Your task to perform on an android device: turn off javascript in the chrome app Image 0: 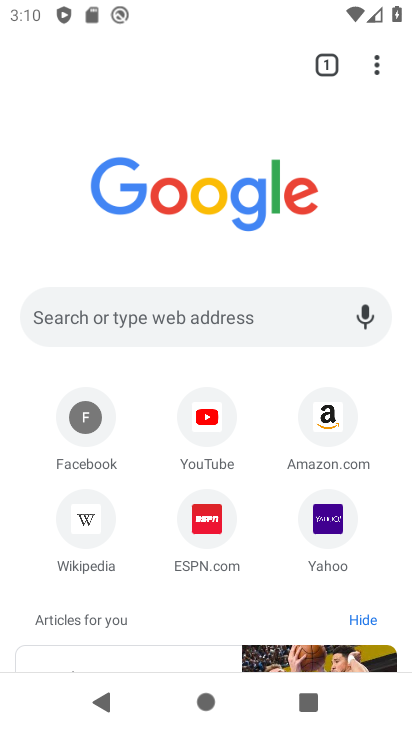
Step 0: click (364, 60)
Your task to perform on an android device: turn off javascript in the chrome app Image 1: 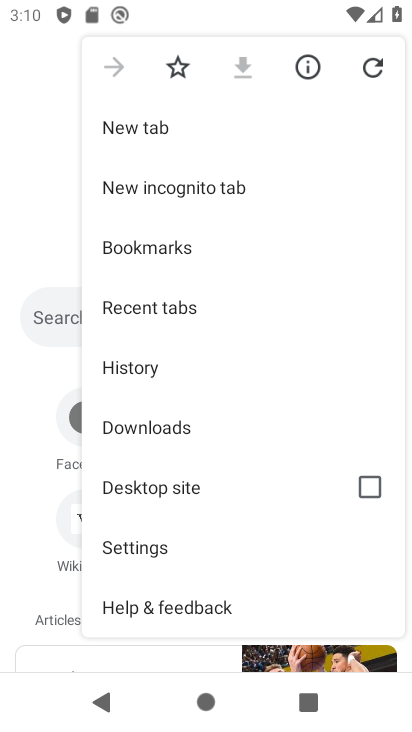
Step 1: click (185, 547)
Your task to perform on an android device: turn off javascript in the chrome app Image 2: 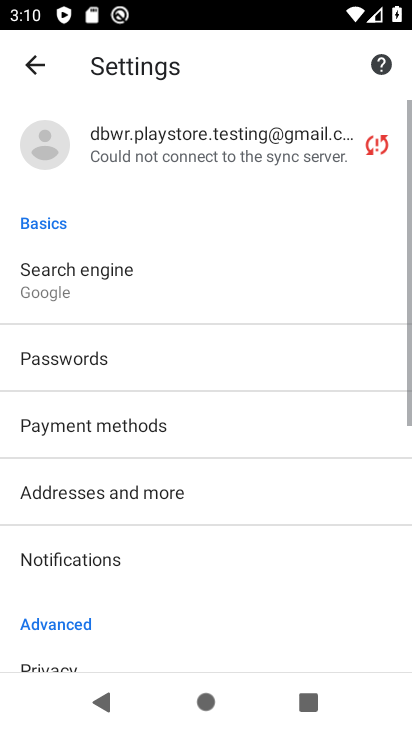
Step 2: drag from (223, 536) to (264, 163)
Your task to perform on an android device: turn off javascript in the chrome app Image 3: 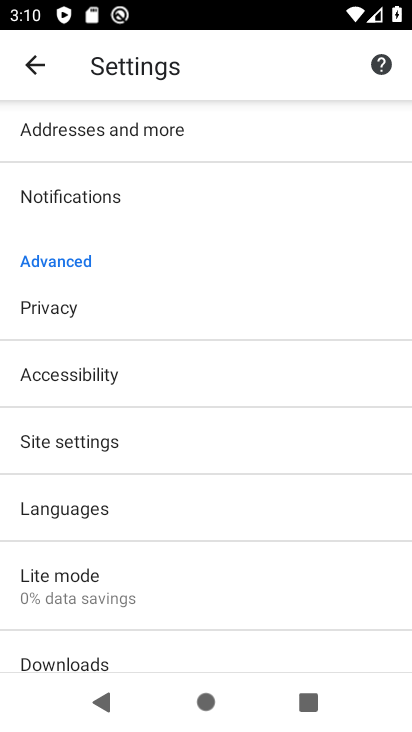
Step 3: drag from (206, 595) to (228, 407)
Your task to perform on an android device: turn off javascript in the chrome app Image 4: 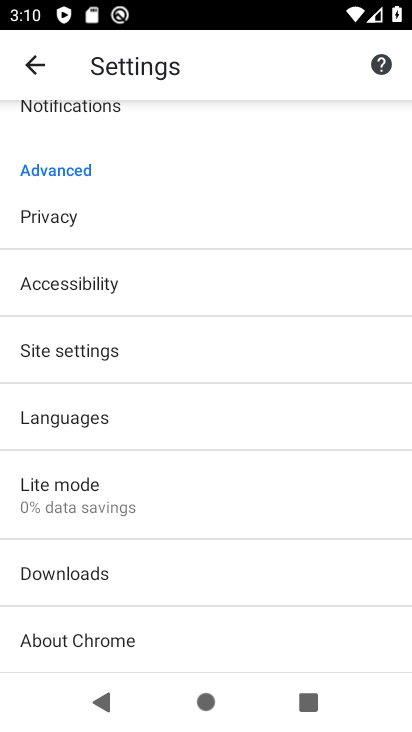
Step 4: click (137, 351)
Your task to perform on an android device: turn off javascript in the chrome app Image 5: 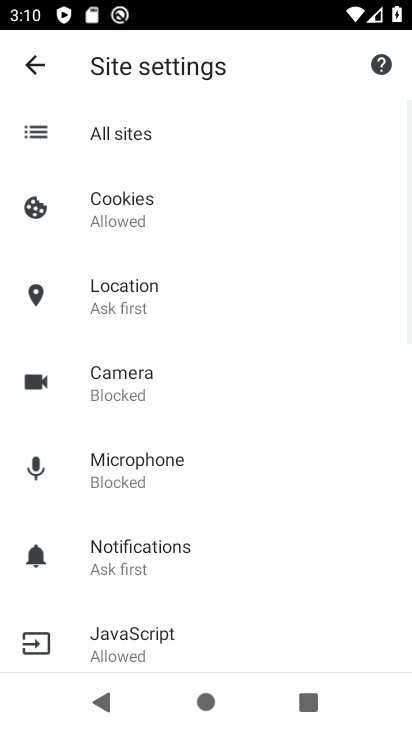
Step 5: click (156, 636)
Your task to perform on an android device: turn off javascript in the chrome app Image 6: 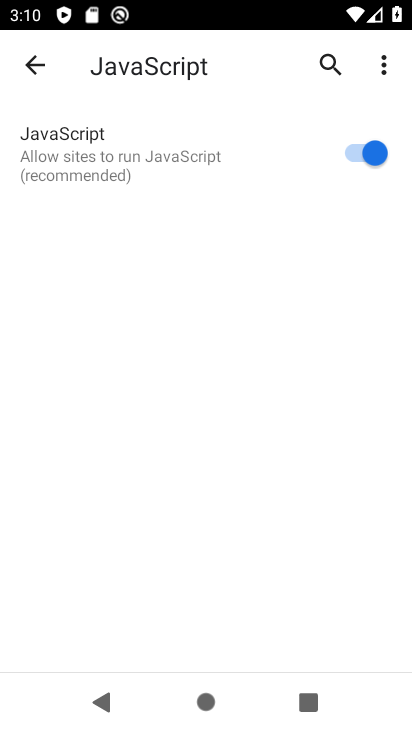
Step 6: click (355, 153)
Your task to perform on an android device: turn off javascript in the chrome app Image 7: 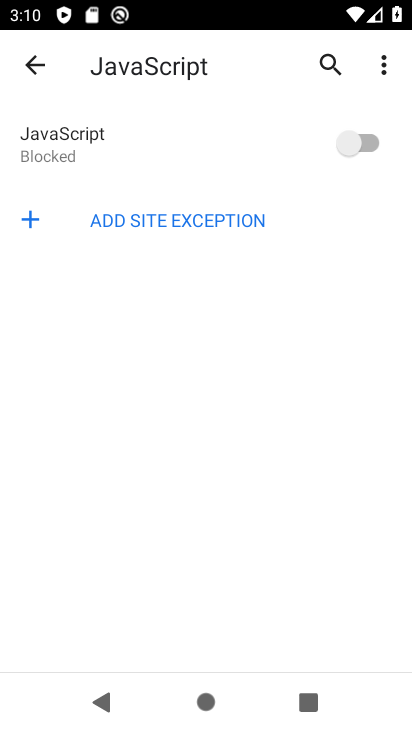
Step 7: task complete